Your task to perform on an android device: turn off notifications in google photos Image 0: 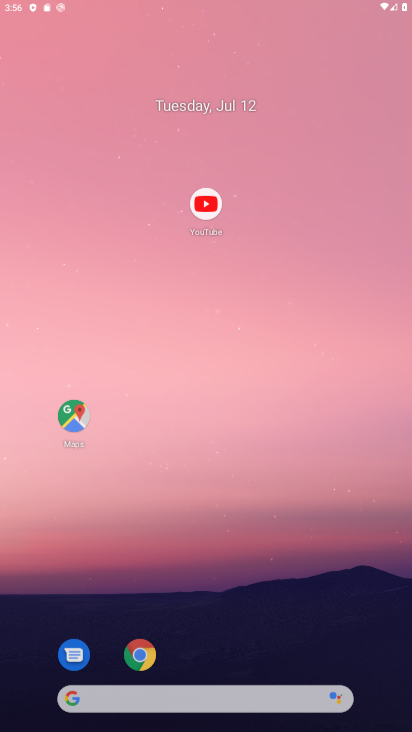
Step 0: click (175, 33)
Your task to perform on an android device: turn off notifications in google photos Image 1: 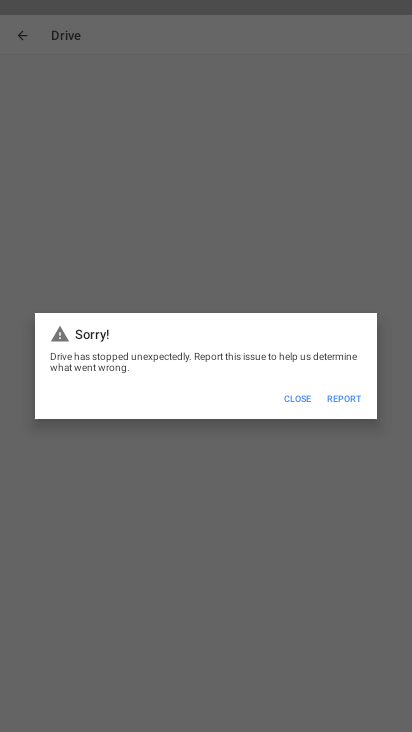
Step 1: drag from (265, 624) to (220, 100)
Your task to perform on an android device: turn off notifications in google photos Image 2: 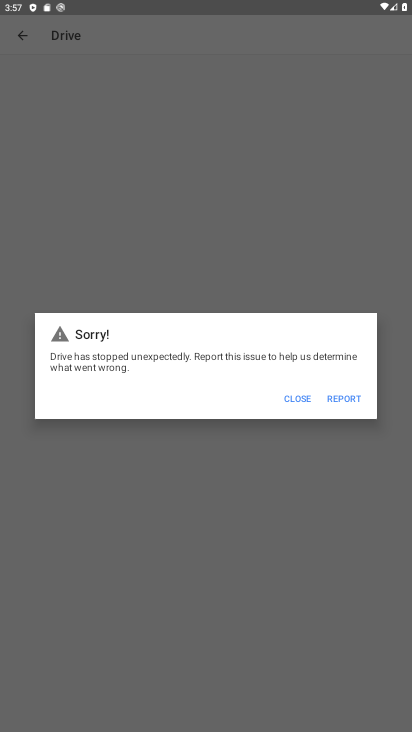
Step 2: click (294, 398)
Your task to perform on an android device: turn off notifications in google photos Image 3: 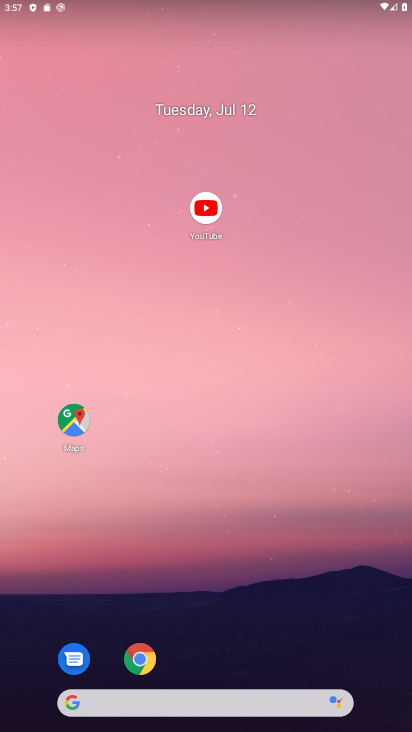
Step 3: drag from (254, 588) to (192, 195)
Your task to perform on an android device: turn off notifications in google photos Image 4: 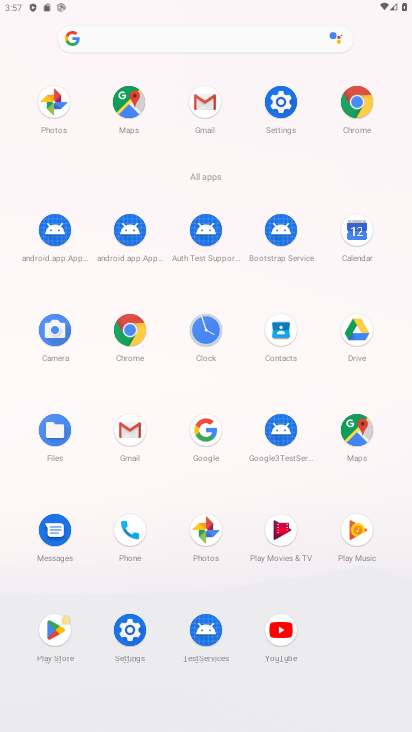
Step 4: click (213, 523)
Your task to perform on an android device: turn off notifications in google photos Image 5: 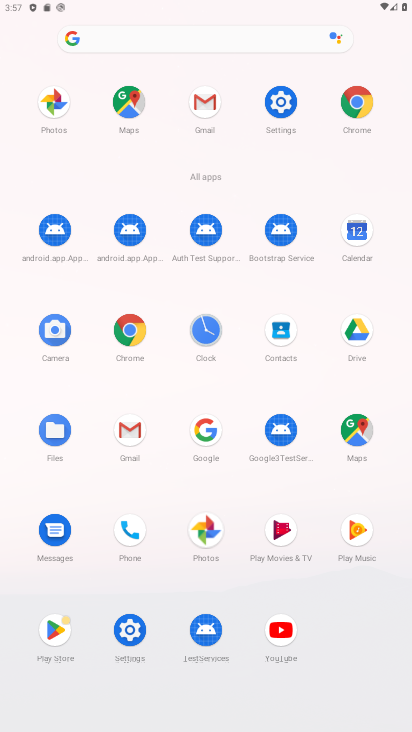
Step 5: click (213, 523)
Your task to perform on an android device: turn off notifications in google photos Image 6: 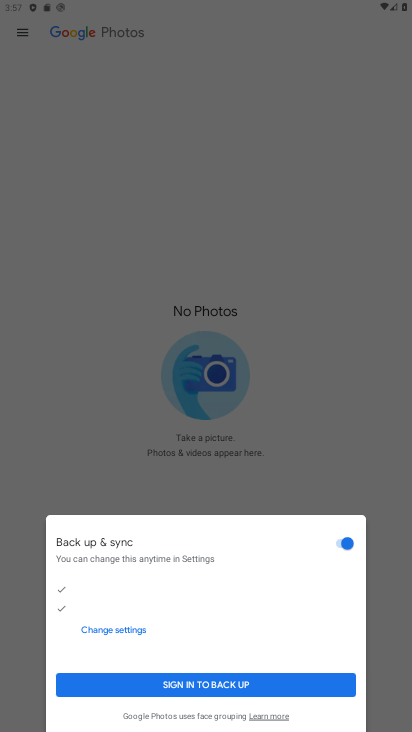
Step 6: click (330, 349)
Your task to perform on an android device: turn off notifications in google photos Image 7: 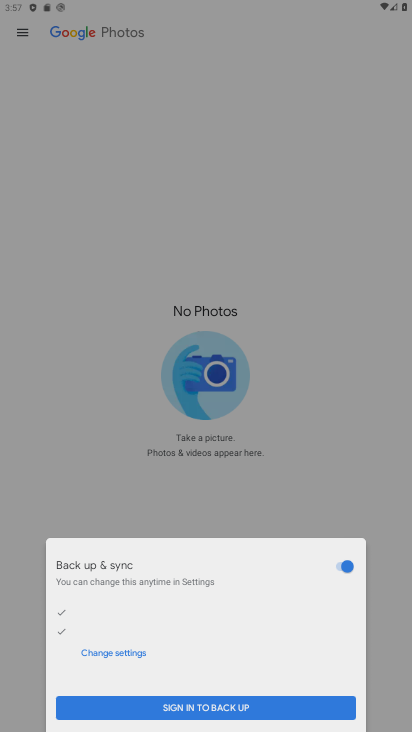
Step 7: click (329, 354)
Your task to perform on an android device: turn off notifications in google photos Image 8: 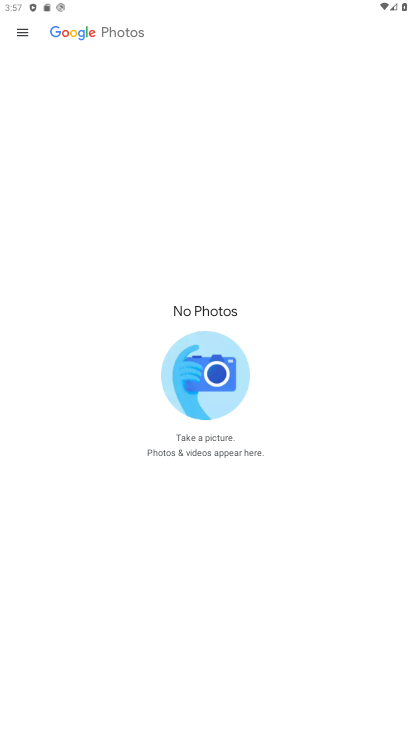
Step 8: click (328, 355)
Your task to perform on an android device: turn off notifications in google photos Image 9: 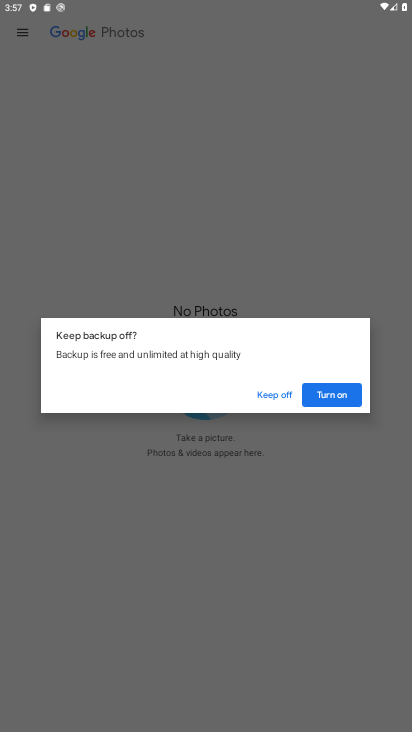
Step 9: click (328, 355)
Your task to perform on an android device: turn off notifications in google photos Image 10: 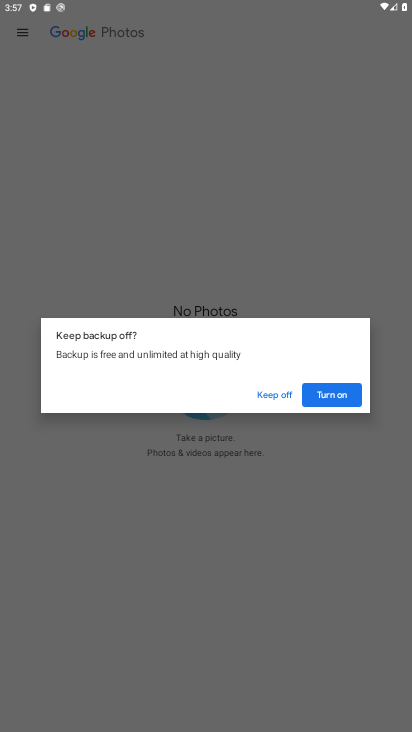
Step 10: click (281, 393)
Your task to perform on an android device: turn off notifications in google photos Image 11: 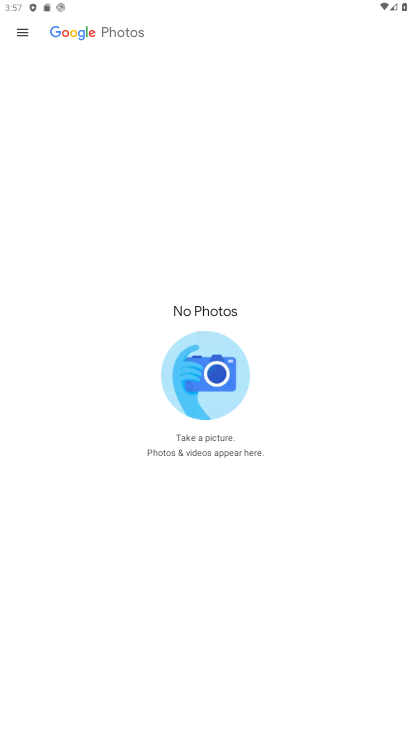
Step 11: task complete